Your task to perform on an android device: Go to internet settings Image 0: 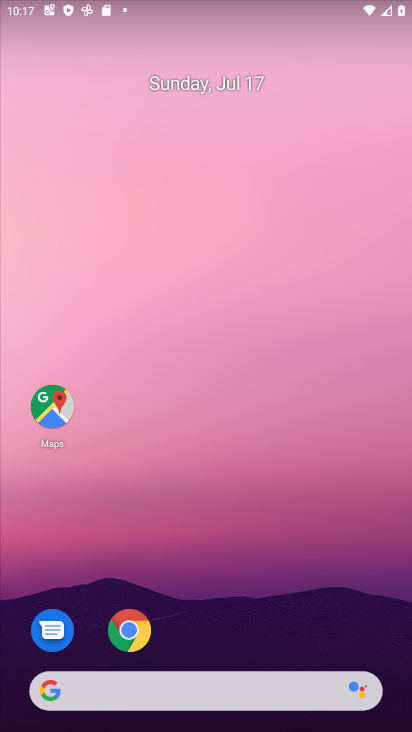
Step 0: drag from (285, 644) to (139, 25)
Your task to perform on an android device: Go to internet settings Image 1: 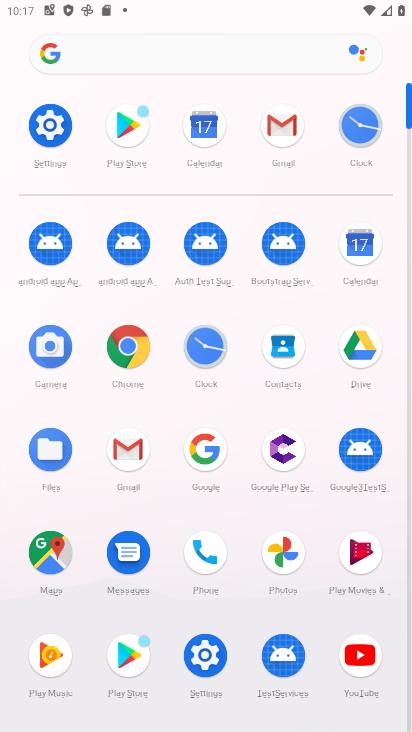
Step 1: click (211, 676)
Your task to perform on an android device: Go to internet settings Image 2: 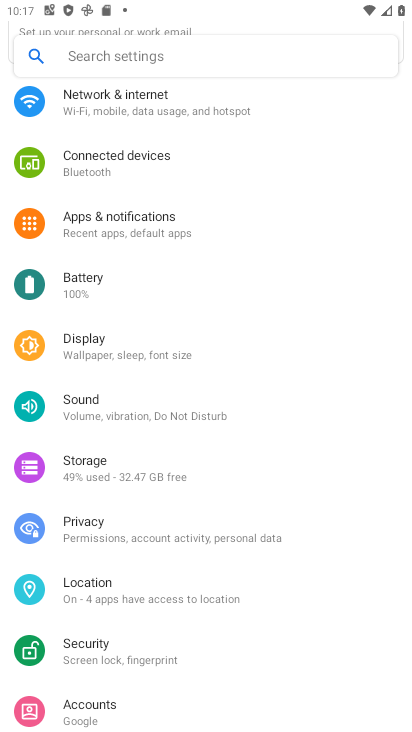
Step 2: click (203, 125)
Your task to perform on an android device: Go to internet settings Image 3: 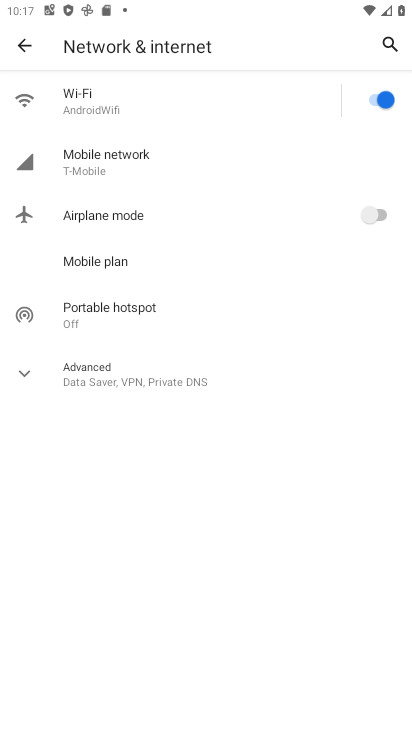
Step 3: task complete